Your task to perform on an android device: Go to Reddit.com Image 0: 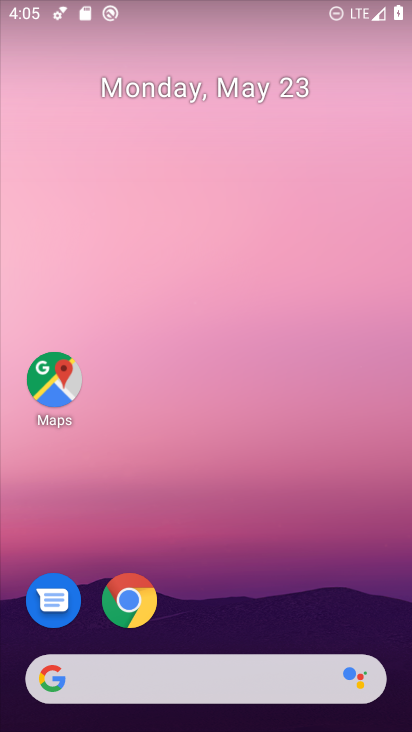
Step 0: click (135, 608)
Your task to perform on an android device: Go to Reddit.com Image 1: 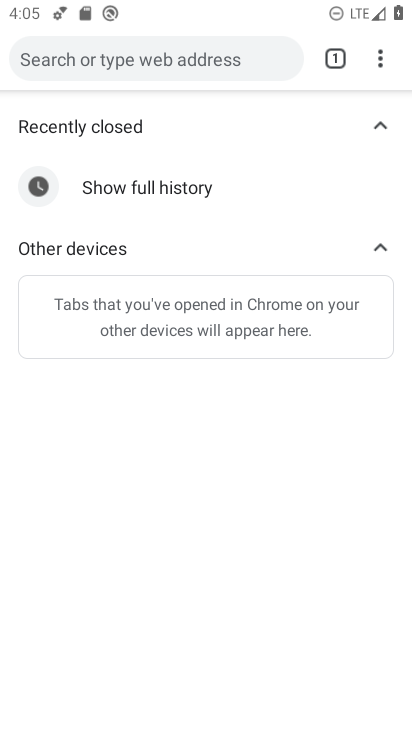
Step 1: click (105, 59)
Your task to perform on an android device: Go to Reddit.com Image 2: 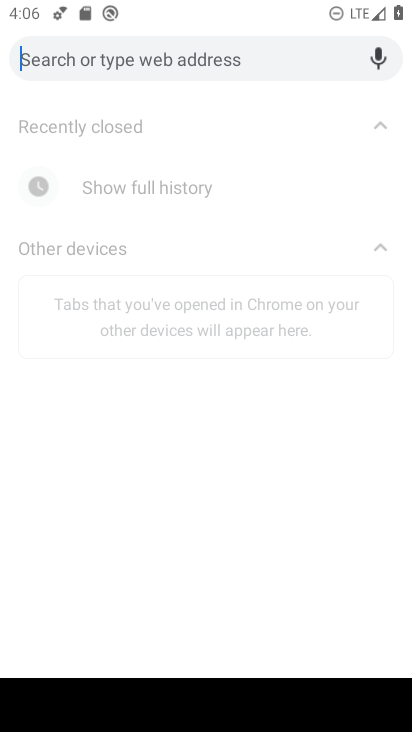
Step 2: type "reddit.com"
Your task to perform on an android device: Go to Reddit.com Image 3: 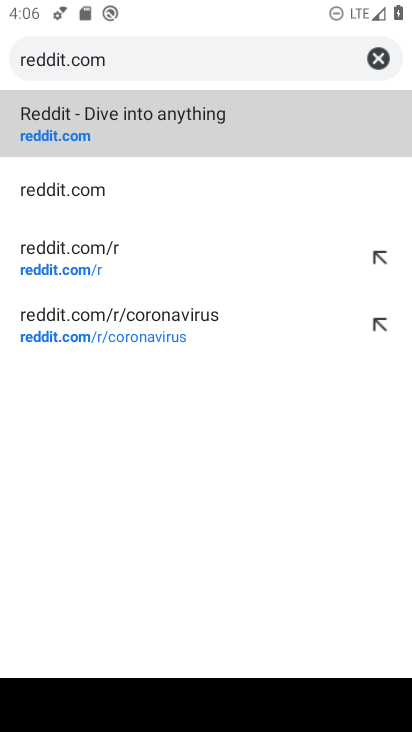
Step 3: click (60, 193)
Your task to perform on an android device: Go to Reddit.com Image 4: 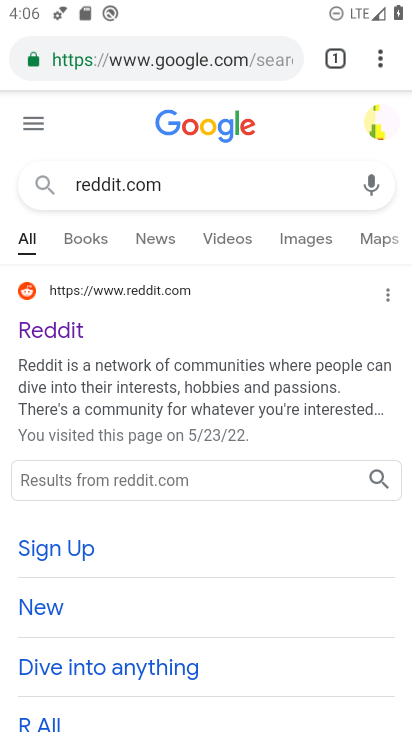
Step 4: click (48, 330)
Your task to perform on an android device: Go to Reddit.com Image 5: 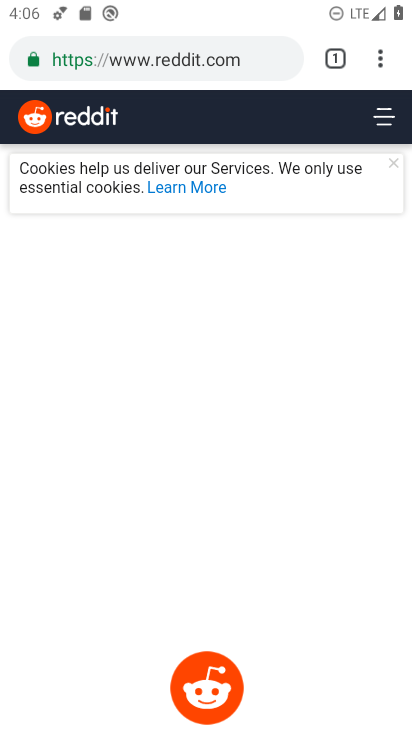
Step 5: task complete